Your task to perform on an android device: Go to Reddit.com Image 0: 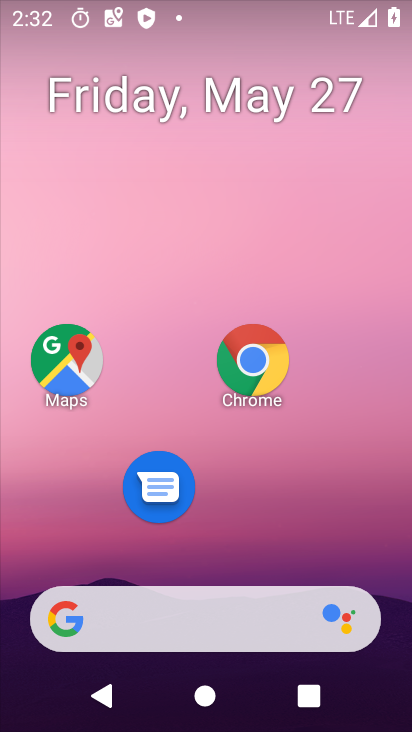
Step 0: drag from (242, 541) to (256, 102)
Your task to perform on an android device: Go to Reddit.com Image 1: 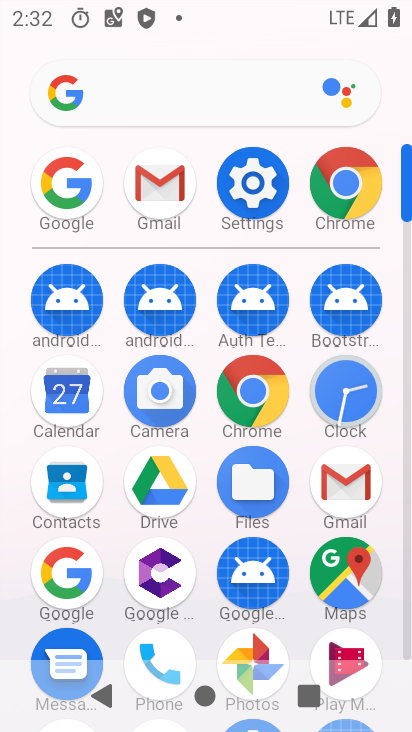
Step 1: click (53, 190)
Your task to perform on an android device: Go to Reddit.com Image 2: 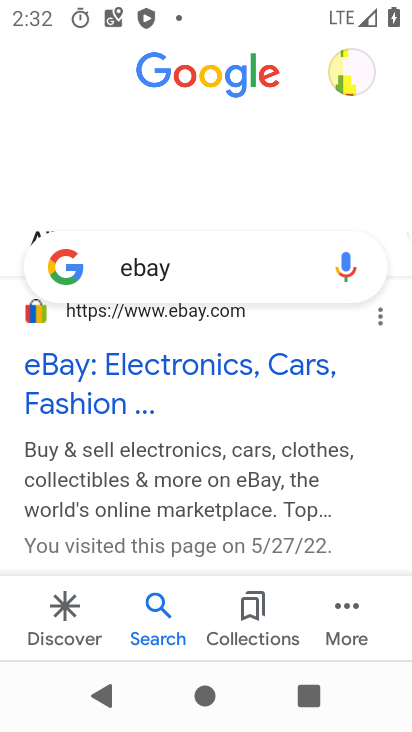
Step 2: click (247, 258)
Your task to perform on an android device: Go to Reddit.com Image 3: 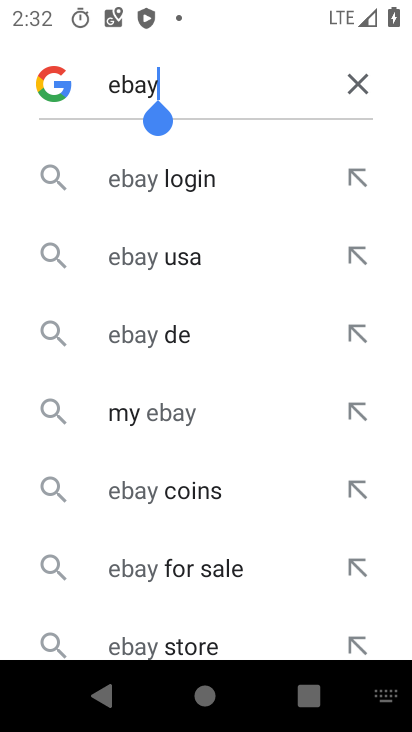
Step 3: click (351, 81)
Your task to perform on an android device: Go to Reddit.com Image 4: 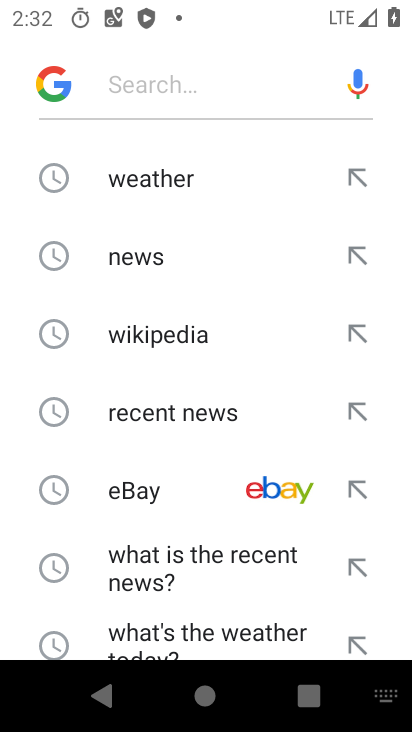
Step 4: drag from (196, 535) to (210, 121)
Your task to perform on an android device: Go to Reddit.com Image 5: 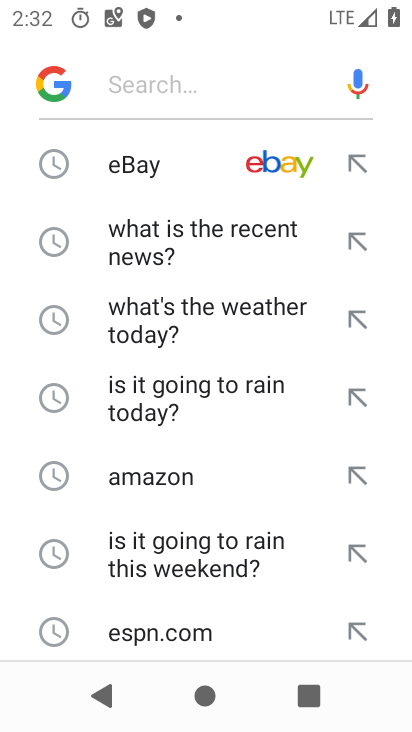
Step 5: drag from (196, 572) to (211, 248)
Your task to perform on an android device: Go to Reddit.com Image 6: 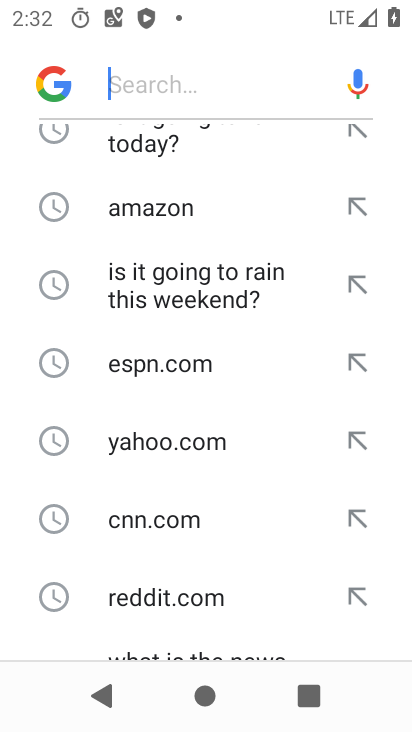
Step 6: click (144, 607)
Your task to perform on an android device: Go to Reddit.com Image 7: 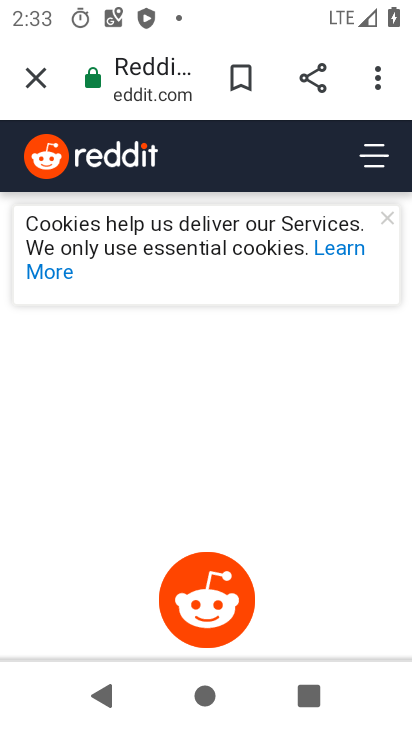
Step 7: task complete